Your task to perform on an android device: refresh tabs in the chrome app Image 0: 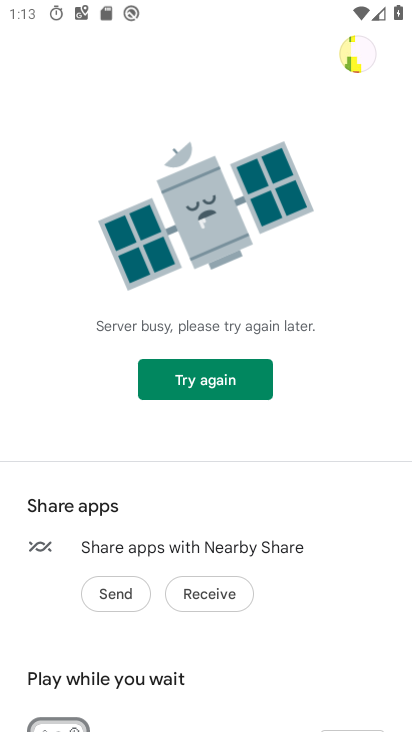
Step 0: press home button
Your task to perform on an android device: refresh tabs in the chrome app Image 1: 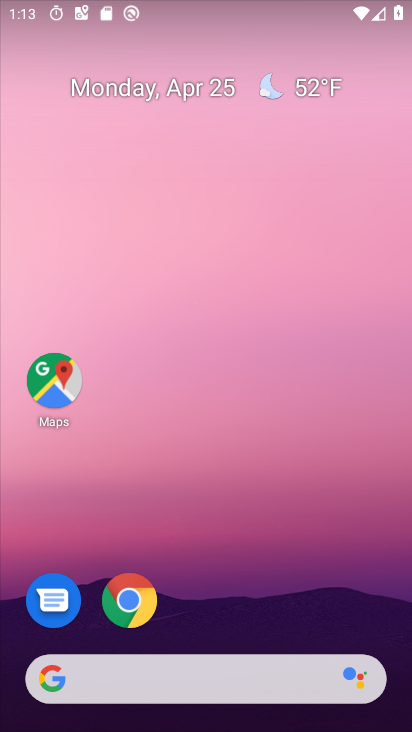
Step 1: drag from (209, 661) to (313, 89)
Your task to perform on an android device: refresh tabs in the chrome app Image 2: 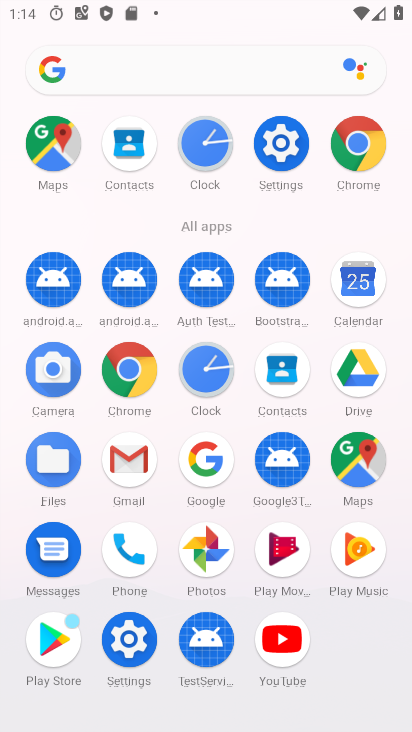
Step 2: click (352, 152)
Your task to perform on an android device: refresh tabs in the chrome app Image 3: 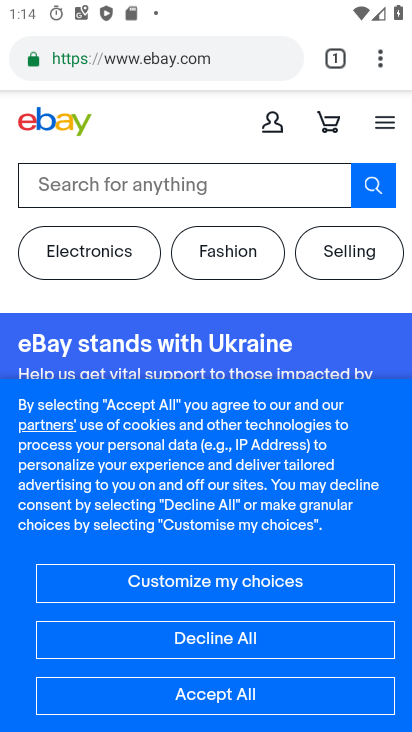
Step 3: click (380, 62)
Your task to perform on an android device: refresh tabs in the chrome app Image 4: 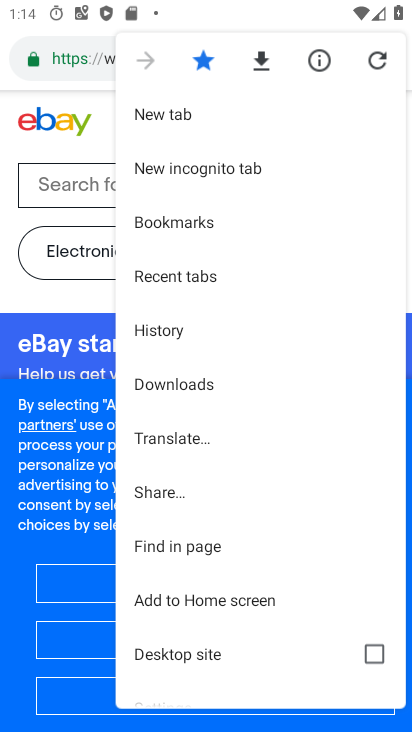
Step 4: click (371, 63)
Your task to perform on an android device: refresh tabs in the chrome app Image 5: 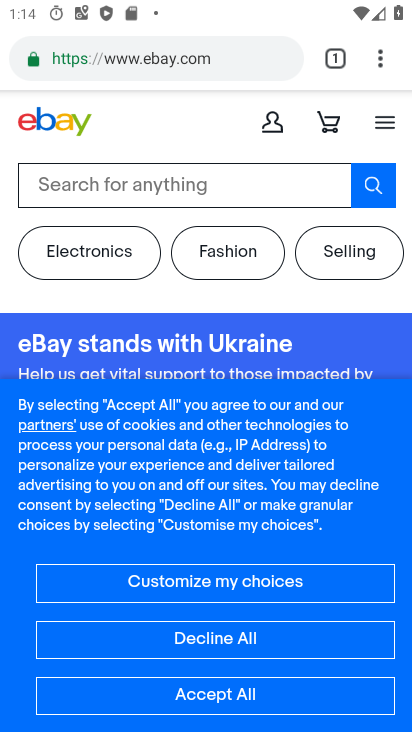
Step 5: task complete